Your task to perform on an android device: Open privacy settings Image 0: 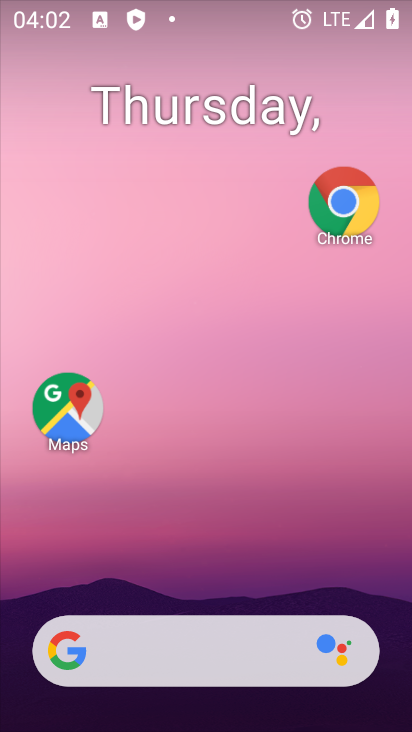
Step 0: drag from (283, 522) to (237, 69)
Your task to perform on an android device: Open privacy settings Image 1: 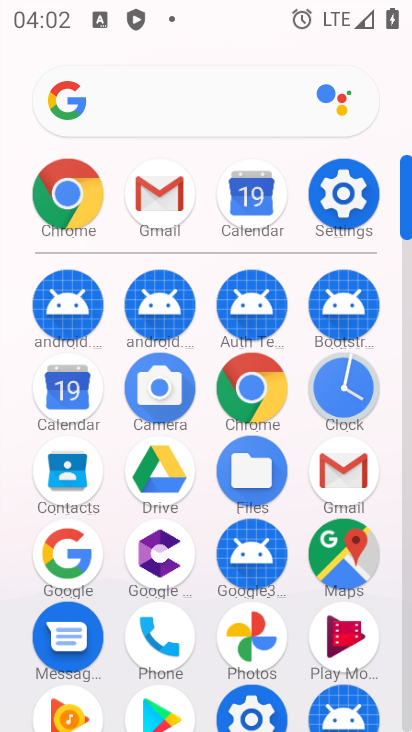
Step 1: click (339, 203)
Your task to perform on an android device: Open privacy settings Image 2: 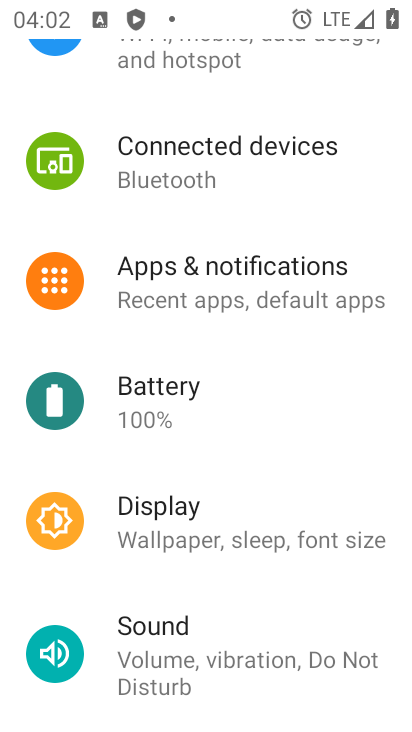
Step 2: drag from (233, 168) to (275, 709)
Your task to perform on an android device: Open privacy settings Image 3: 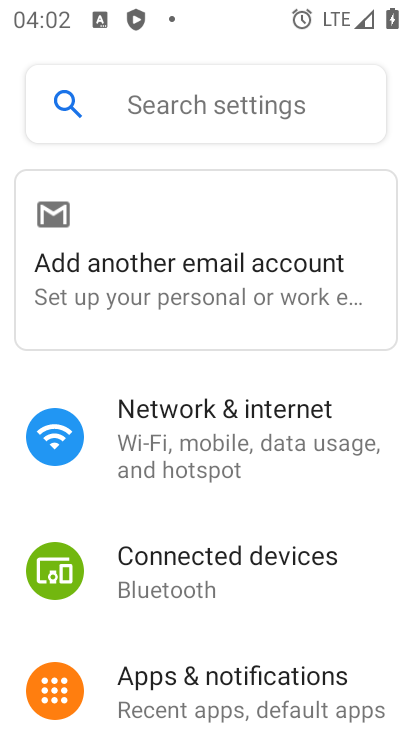
Step 3: drag from (265, 617) to (292, 105)
Your task to perform on an android device: Open privacy settings Image 4: 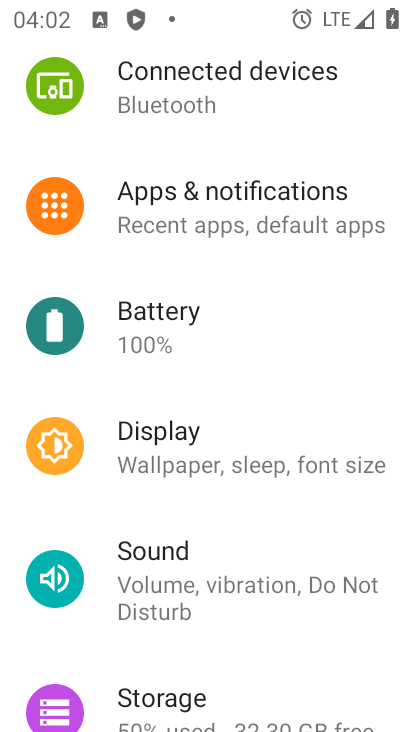
Step 4: drag from (297, 629) to (315, 146)
Your task to perform on an android device: Open privacy settings Image 5: 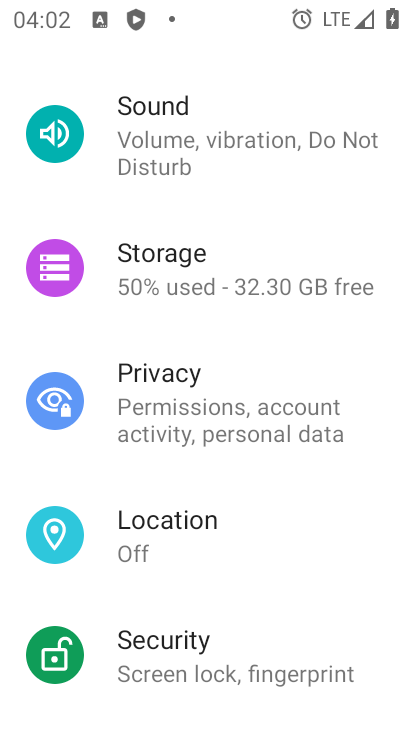
Step 5: click (245, 411)
Your task to perform on an android device: Open privacy settings Image 6: 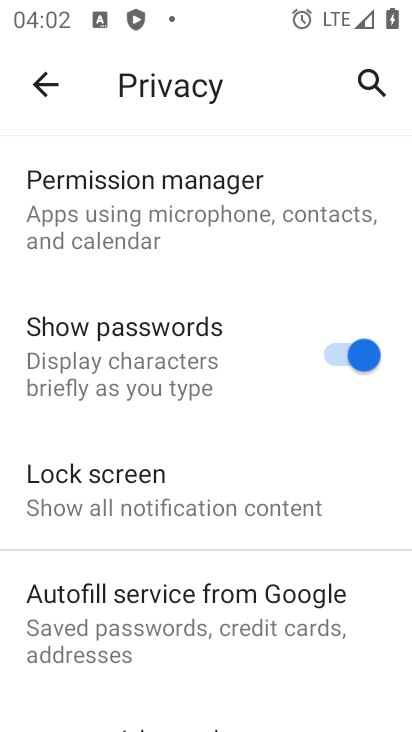
Step 6: task complete